Your task to perform on an android device: check the backup settings in the google photos Image 0: 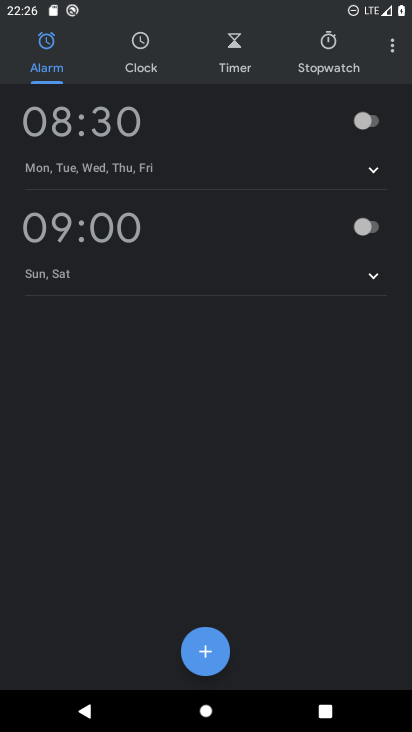
Step 0: press home button
Your task to perform on an android device: check the backup settings in the google photos Image 1: 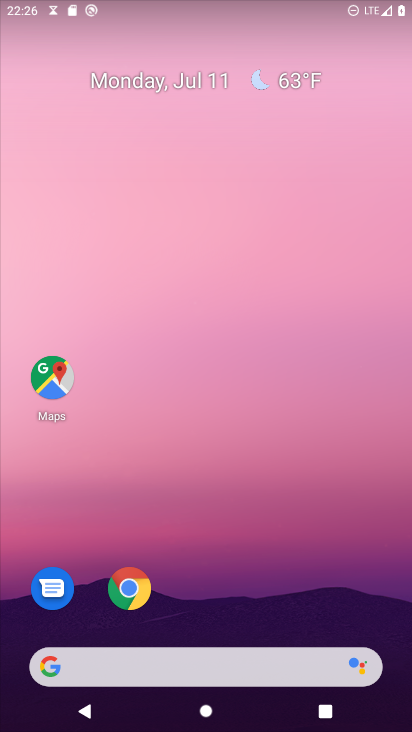
Step 1: drag from (306, 610) to (327, 198)
Your task to perform on an android device: check the backup settings in the google photos Image 2: 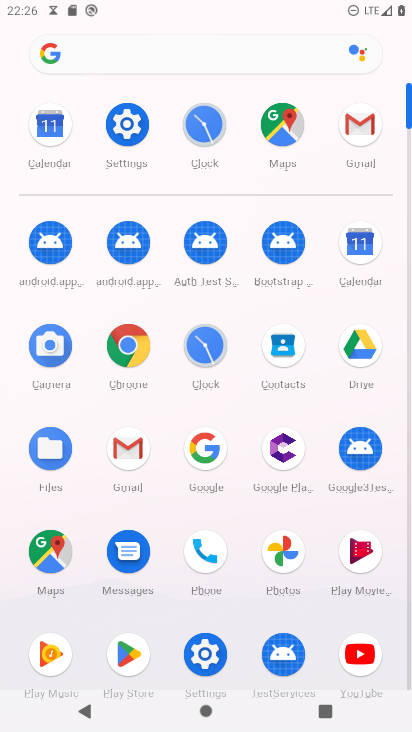
Step 2: click (276, 556)
Your task to perform on an android device: check the backup settings in the google photos Image 3: 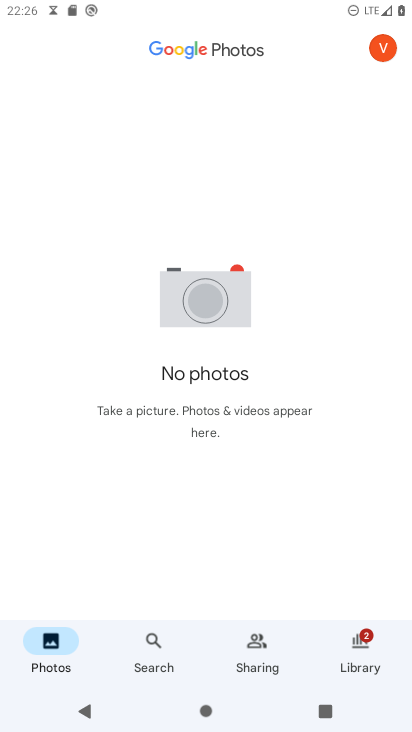
Step 3: click (20, 55)
Your task to perform on an android device: check the backup settings in the google photos Image 4: 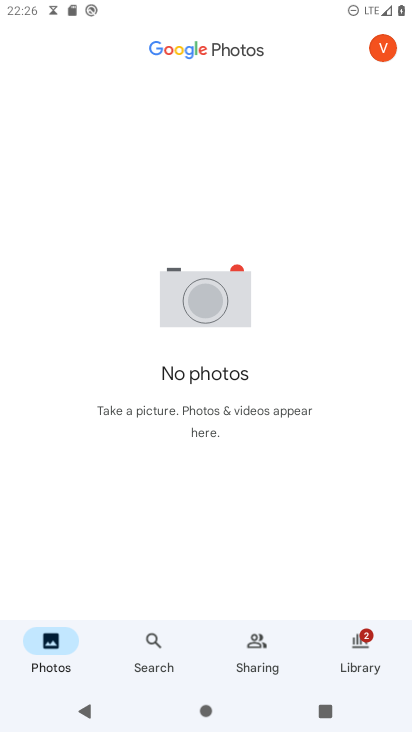
Step 4: click (14, 42)
Your task to perform on an android device: check the backup settings in the google photos Image 5: 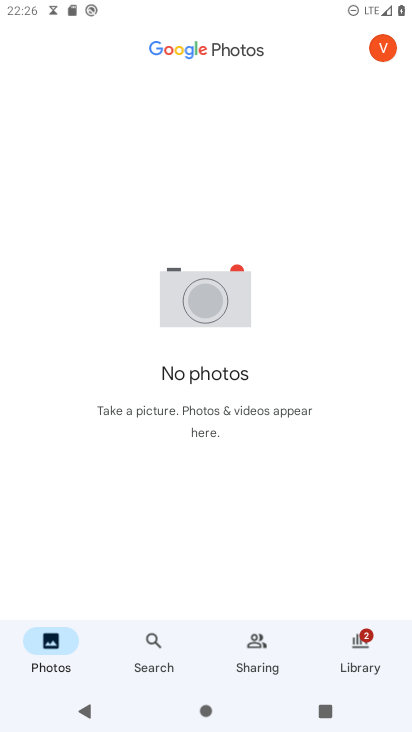
Step 5: click (388, 48)
Your task to perform on an android device: check the backup settings in the google photos Image 6: 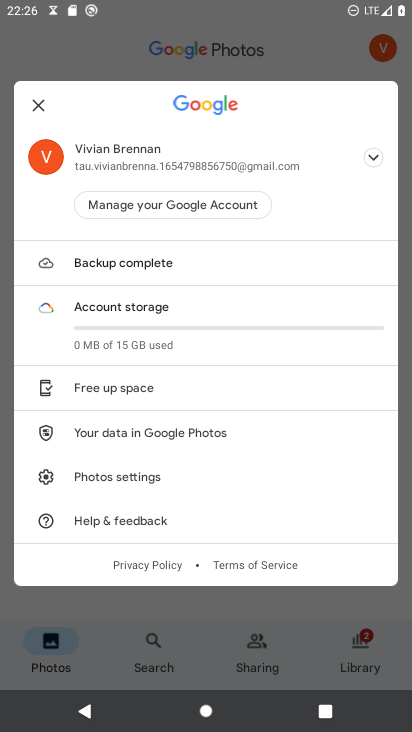
Step 6: click (124, 471)
Your task to perform on an android device: check the backup settings in the google photos Image 7: 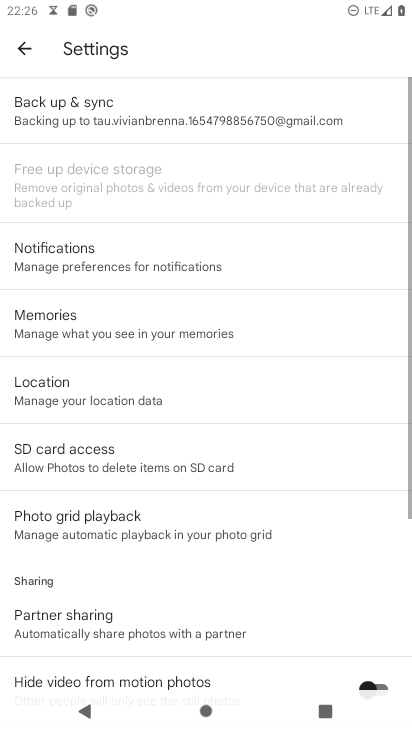
Step 7: click (107, 113)
Your task to perform on an android device: check the backup settings in the google photos Image 8: 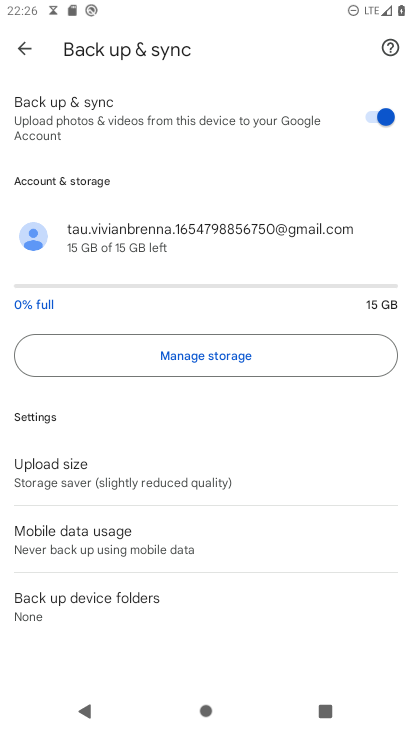
Step 8: task complete